Your task to perform on an android device: add a contact Image 0: 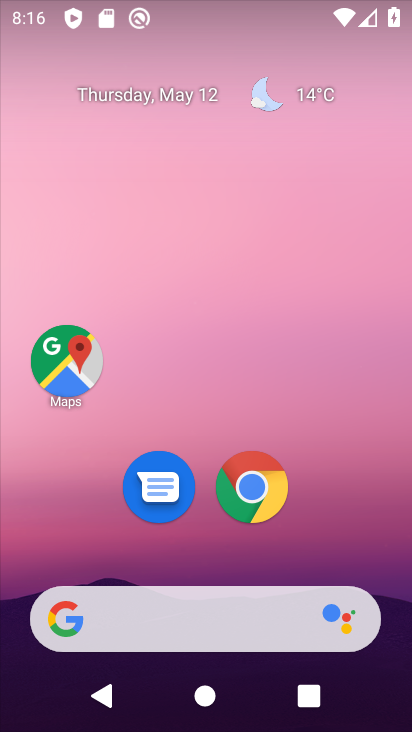
Step 0: drag from (373, 523) to (352, 9)
Your task to perform on an android device: add a contact Image 1: 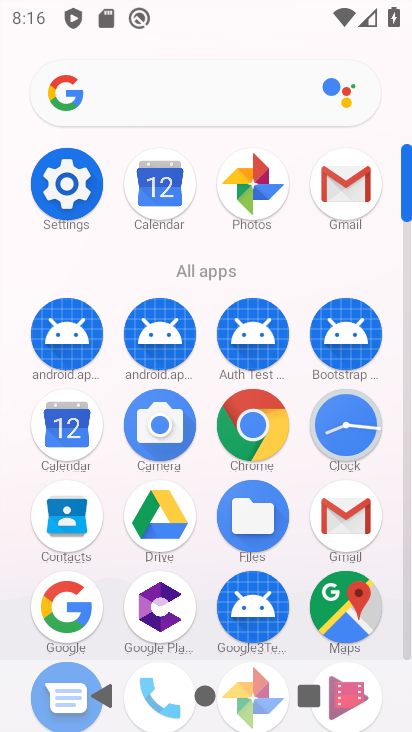
Step 1: click (67, 531)
Your task to perform on an android device: add a contact Image 2: 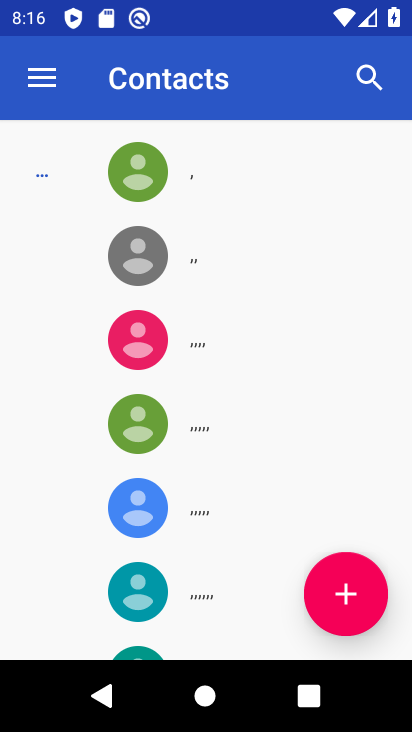
Step 2: click (344, 590)
Your task to perform on an android device: add a contact Image 3: 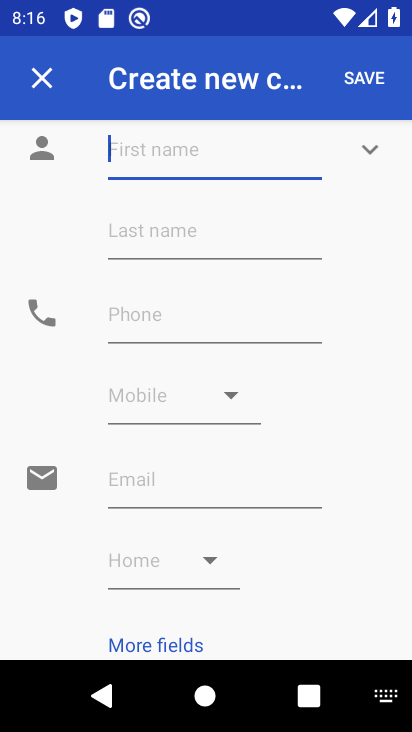
Step 3: click (138, 152)
Your task to perform on an android device: add a contact Image 4: 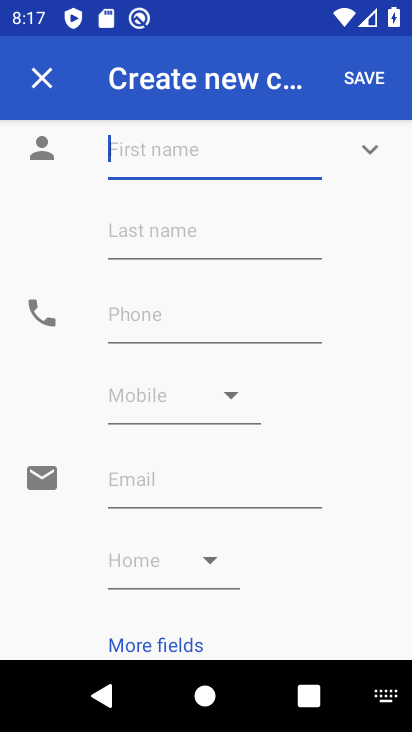
Step 4: type "veena"
Your task to perform on an android device: add a contact Image 5: 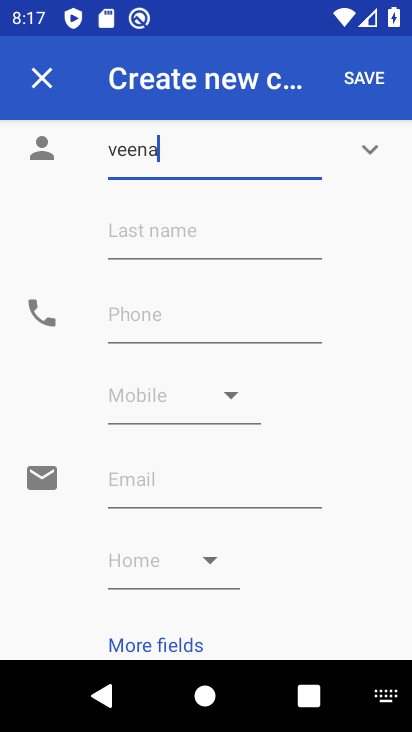
Step 5: click (136, 315)
Your task to perform on an android device: add a contact Image 6: 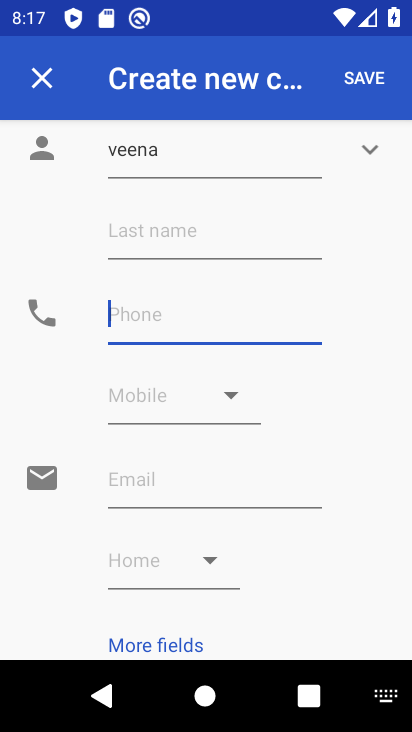
Step 6: type "98776554433"
Your task to perform on an android device: add a contact Image 7: 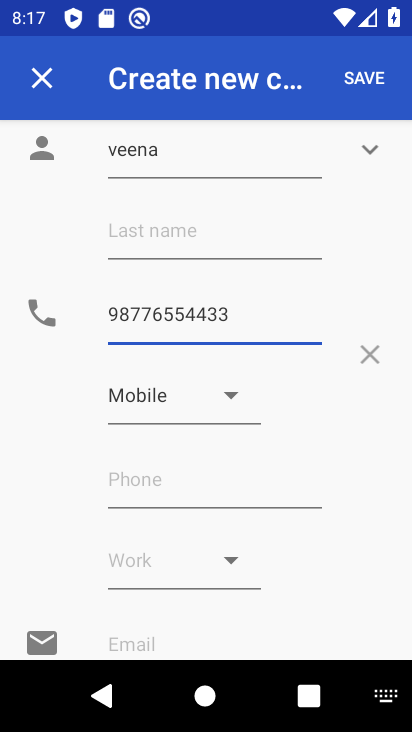
Step 7: click (359, 82)
Your task to perform on an android device: add a contact Image 8: 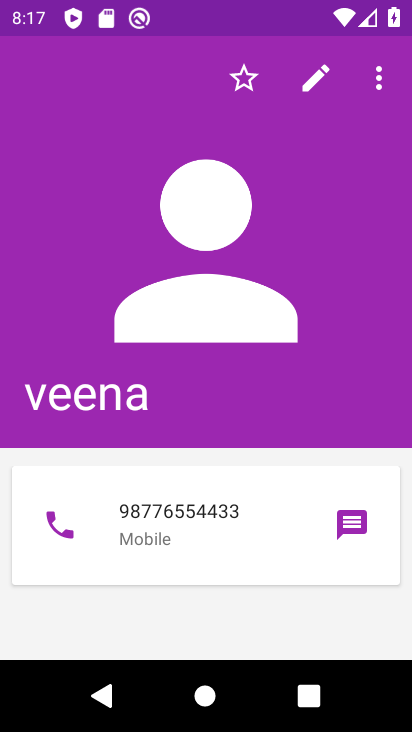
Step 8: task complete